Your task to perform on an android device: Empty the shopping cart on bestbuy. Add corsair k70 to the cart on bestbuy, then select checkout. Image 0: 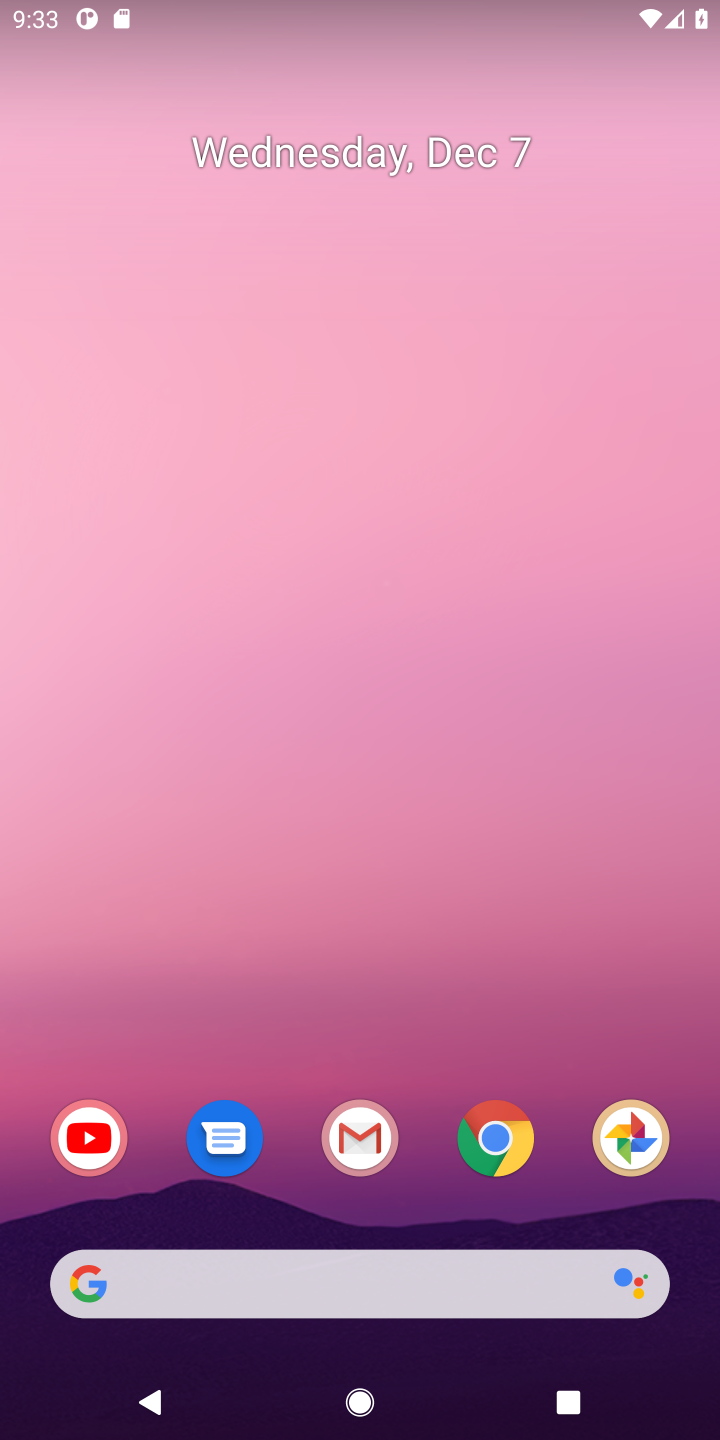
Step 0: press home button
Your task to perform on an android device: Empty the shopping cart on bestbuy. Add corsair k70 to the cart on bestbuy, then select checkout. Image 1: 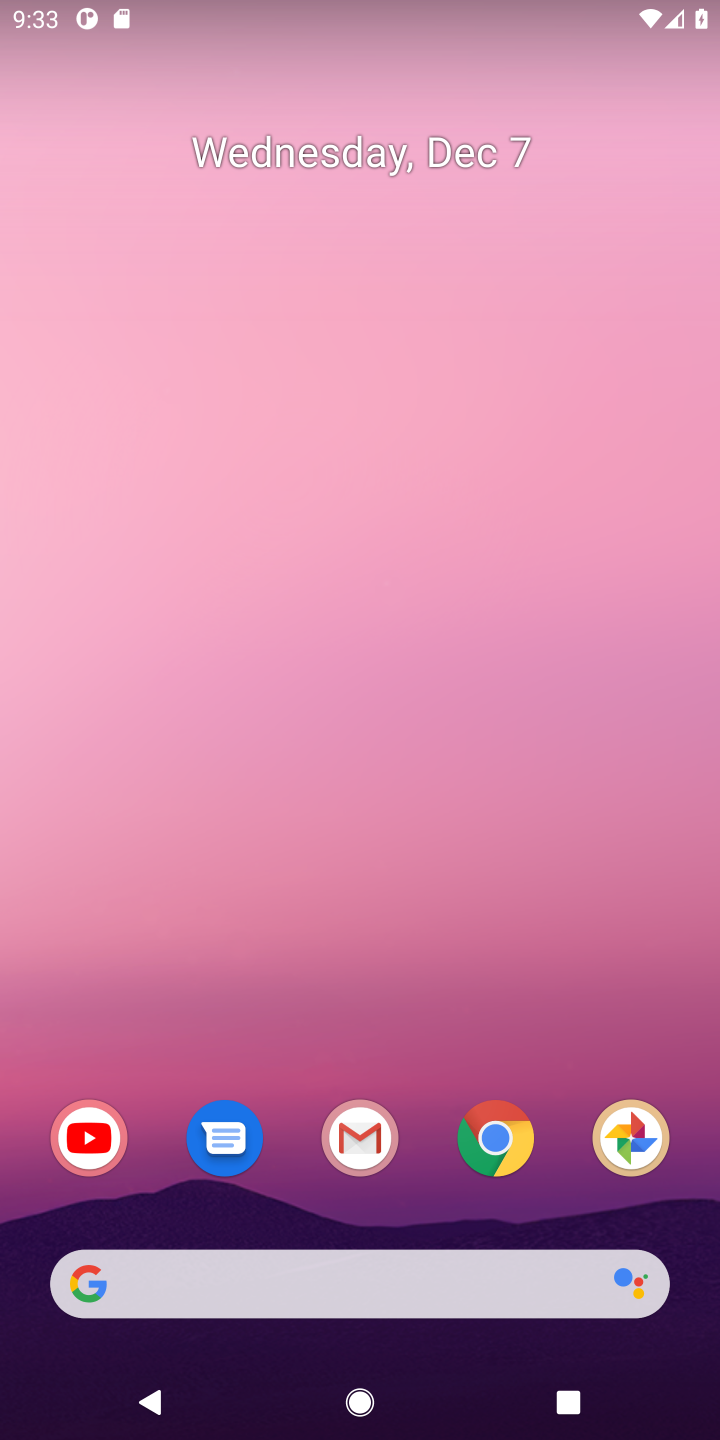
Step 1: click (138, 1281)
Your task to perform on an android device: Empty the shopping cart on bestbuy. Add corsair k70 to the cart on bestbuy, then select checkout. Image 2: 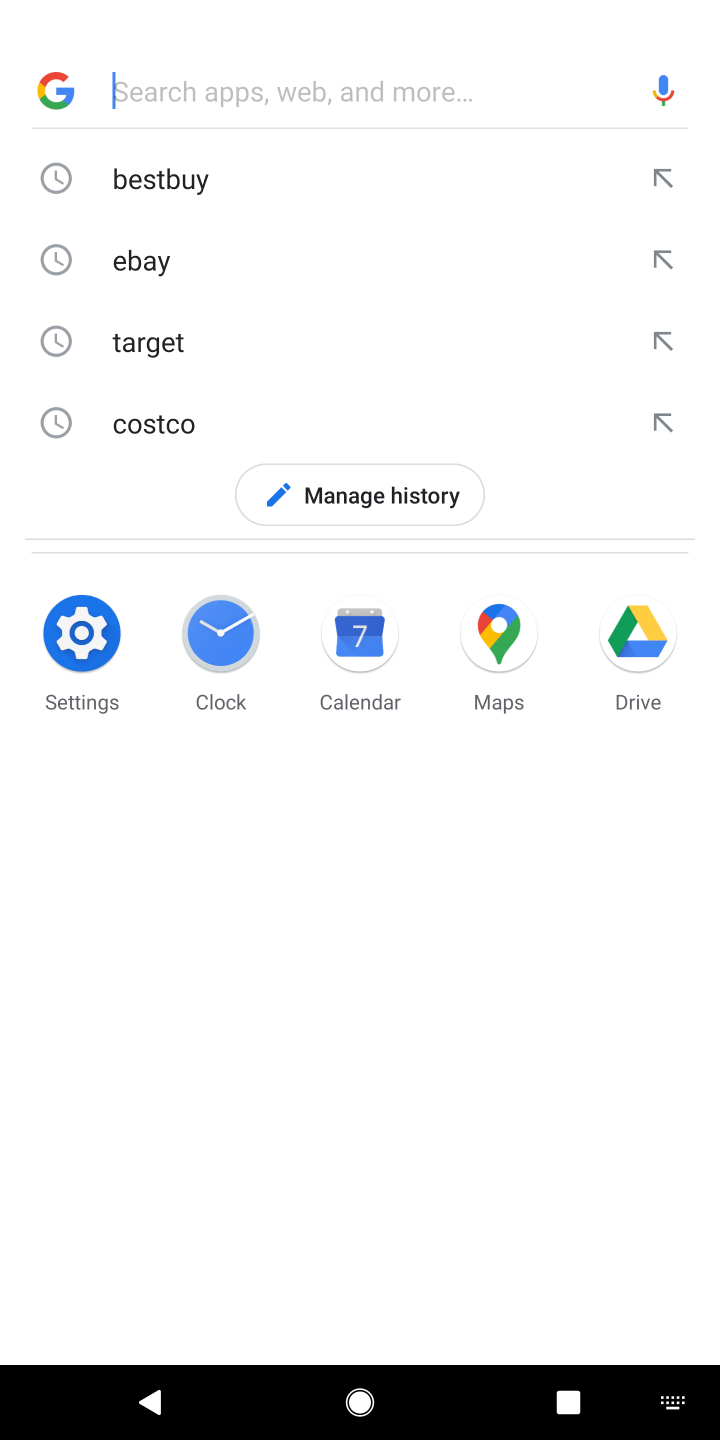
Step 2: type "bestbuy"
Your task to perform on an android device: Empty the shopping cart on bestbuy. Add corsair k70 to the cart on bestbuy, then select checkout. Image 3: 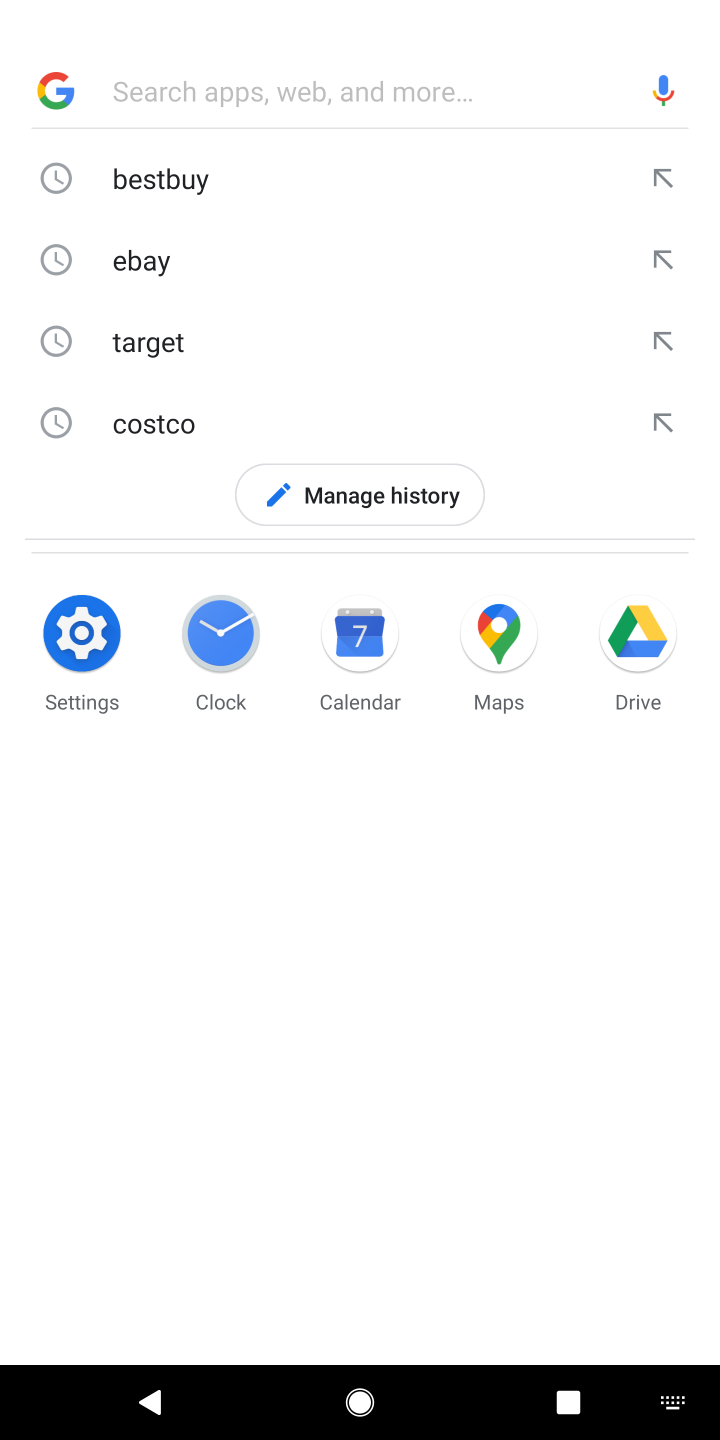
Step 3: click (190, 176)
Your task to perform on an android device: Empty the shopping cart on bestbuy. Add corsair k70 to the cart on bestbuy, then select checkout. Image 4: 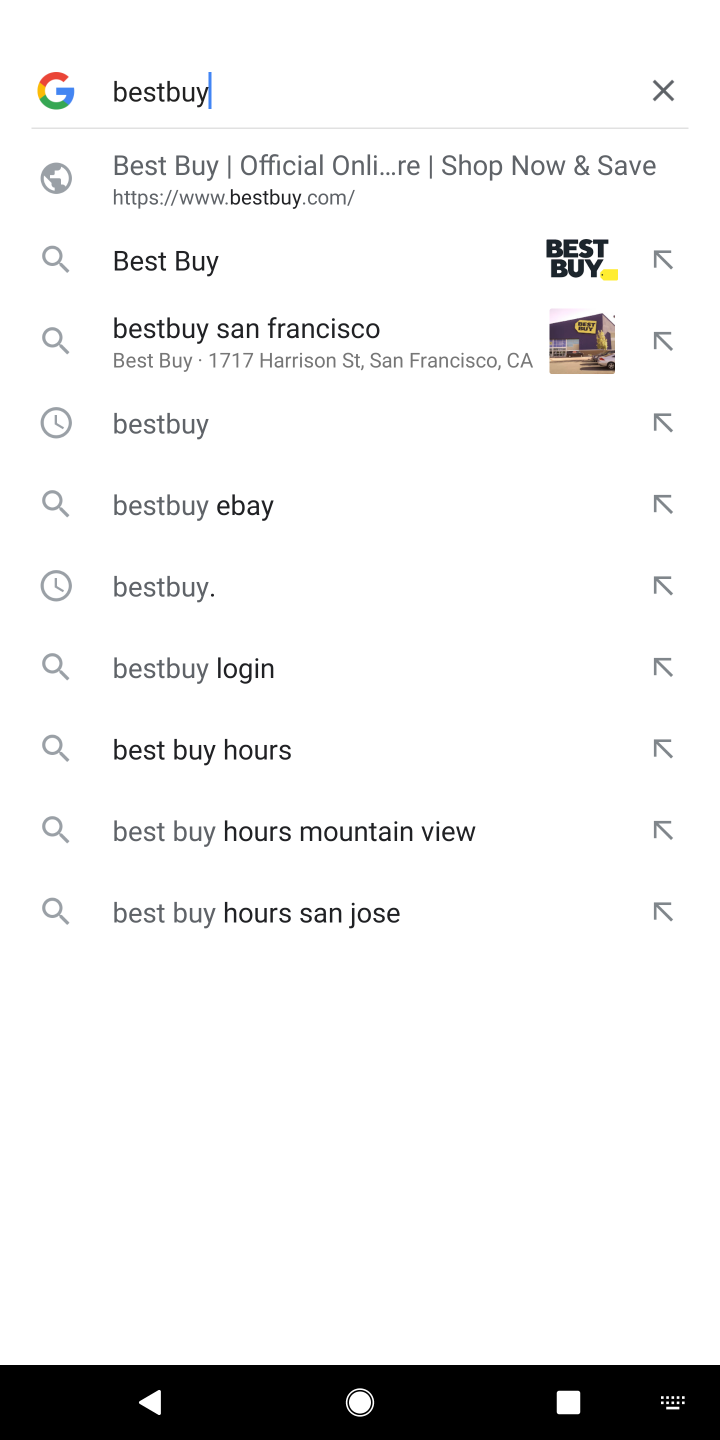
Step 4: press enter
Your task to perform on an android device: Empty the shopping cart on bestbuy. Add corsair k70 to the cart on bestbuy, then select checkout. Image 5: 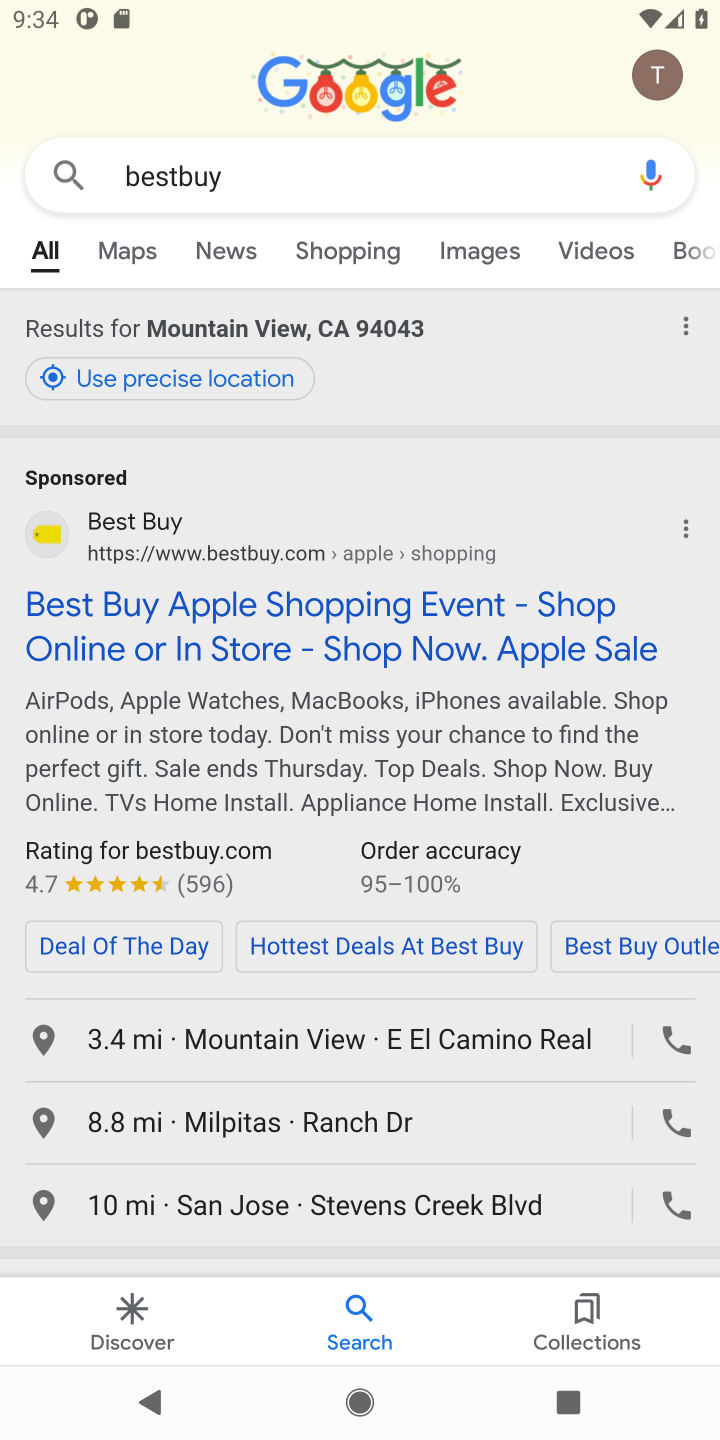
Step 5: click (366, 637)
Your task to perform on an android device: Empty the shopping cart on bestbuy. Add corsair k70 to the cart on bestbuy, then select checkout. Image 6: 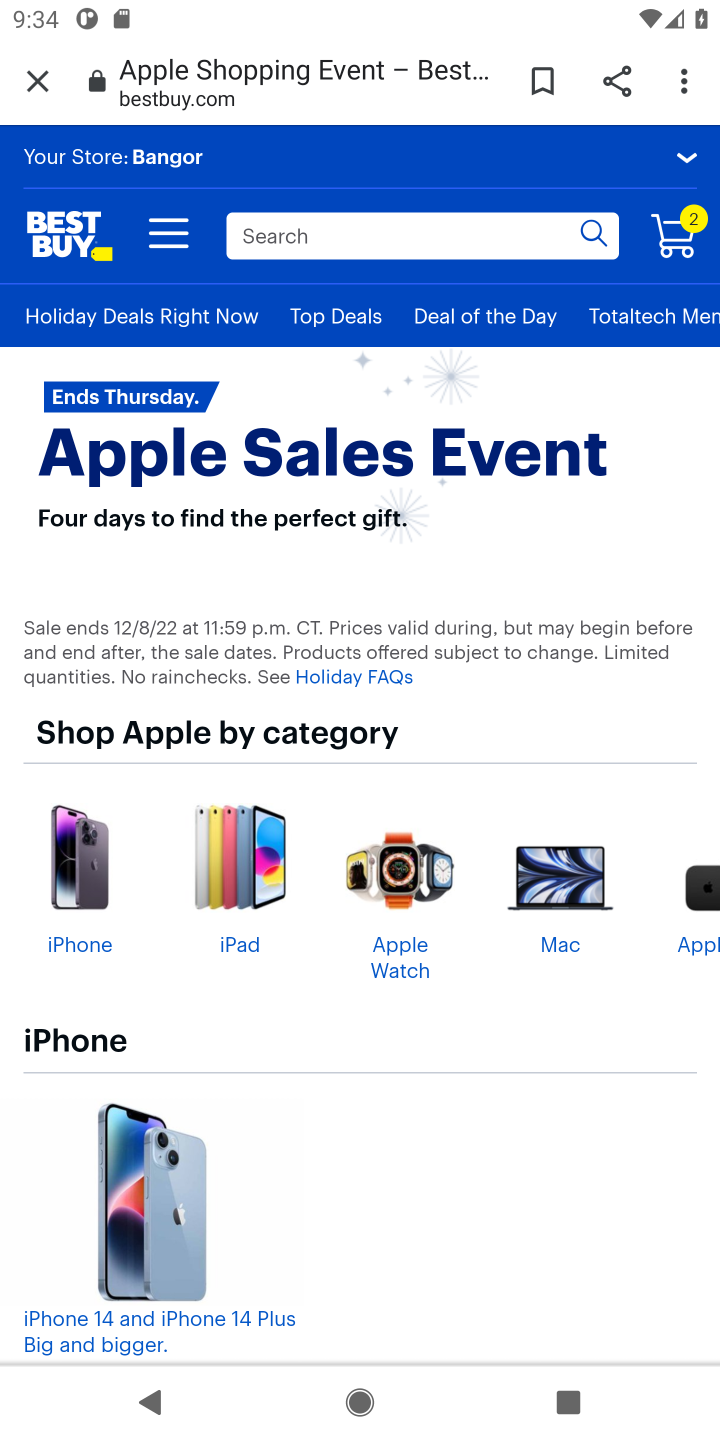
Step 6: click (674, 237)
Your task to perform on an android device: Empty the shopping cart on bestbuy. Add corsair k70 to the cart on bestbuy, then select checkout. Image 7: 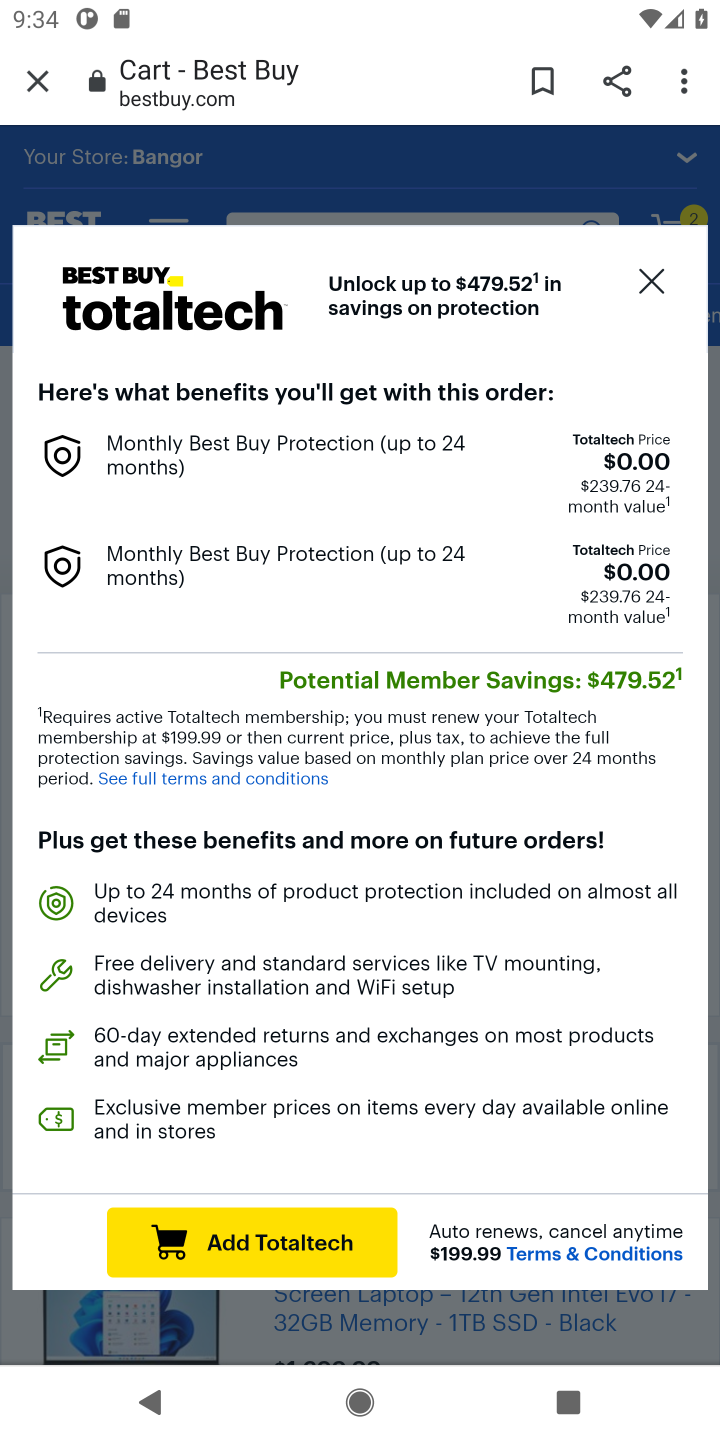
Step 7: click (651, 272)
Your task to perform on an android device: Empty the shopping cart on bestbuy. Add corsair k70 to the cart on bestbuy, then select checkout. Image 8: 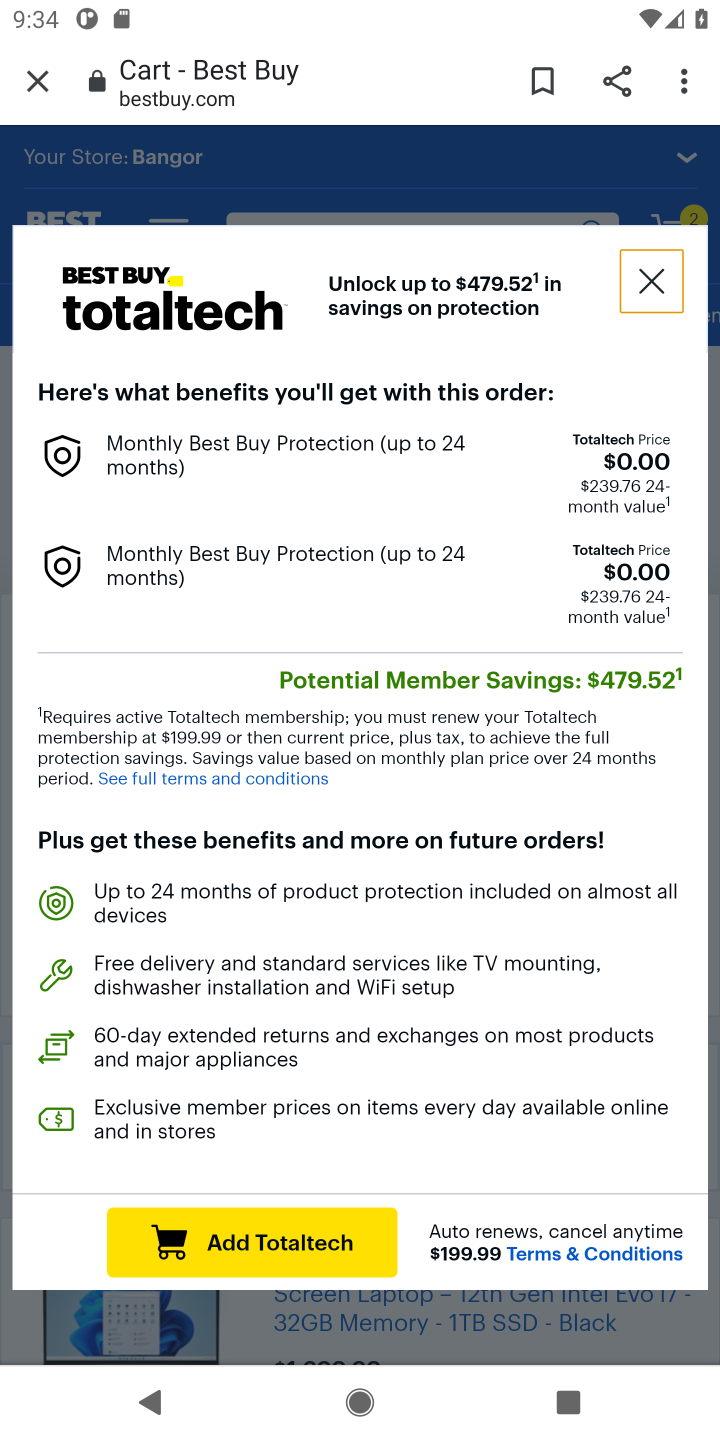
Step 8: click (655, 282)
Your task to perform on an android device: Empty the shopping cart on bestbuy. Add corsair k70 to the cart on bestbuy, then select checkout. Image 9: 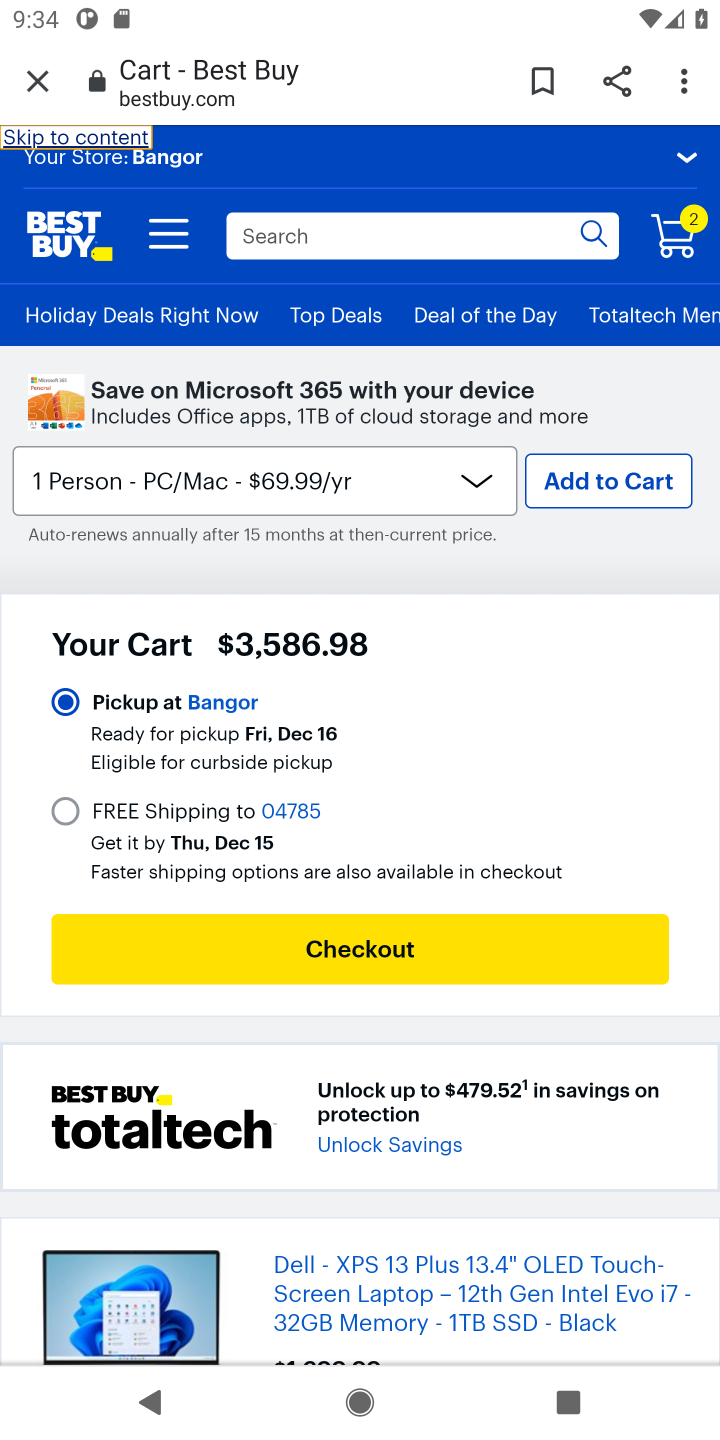
Step 9: drag from (422, 1178) to (416, 474)
Your task to perform on an android device: Empty the shopping cart on bestbuy. Add corsair k70 to the cart on bestbuy, then select checkout. Image 10: 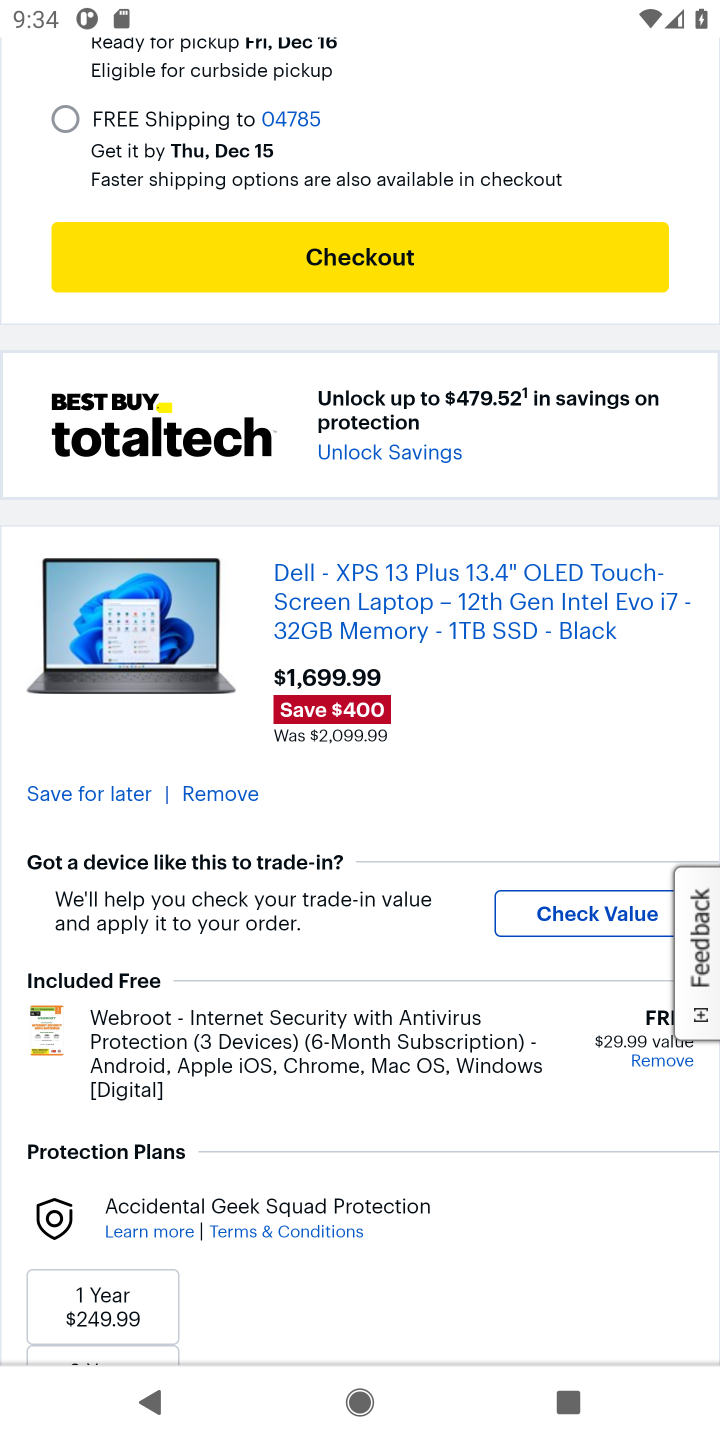
Step 10: click (198, 781)
Your task to perform on an android device: Empty the shopping cart on bestbuy. Add corsair k70 to the cart on bestbuy, then select checkout. Image 11: 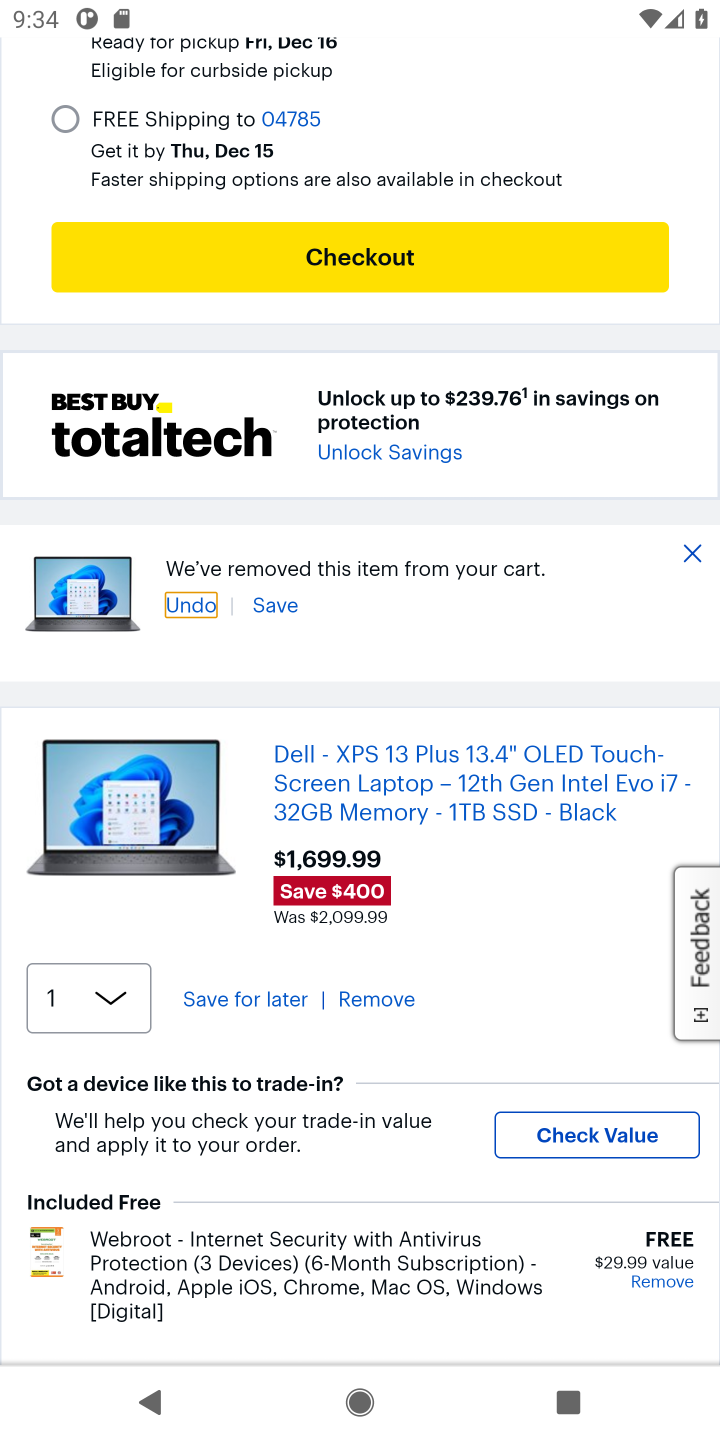
Step 11: click (388, 997)
Your task to perform on an android device: Empty the shopping cart on bestbuy. Add corsair k70 to the cart on bestbuy, then select checkout. Image 12: 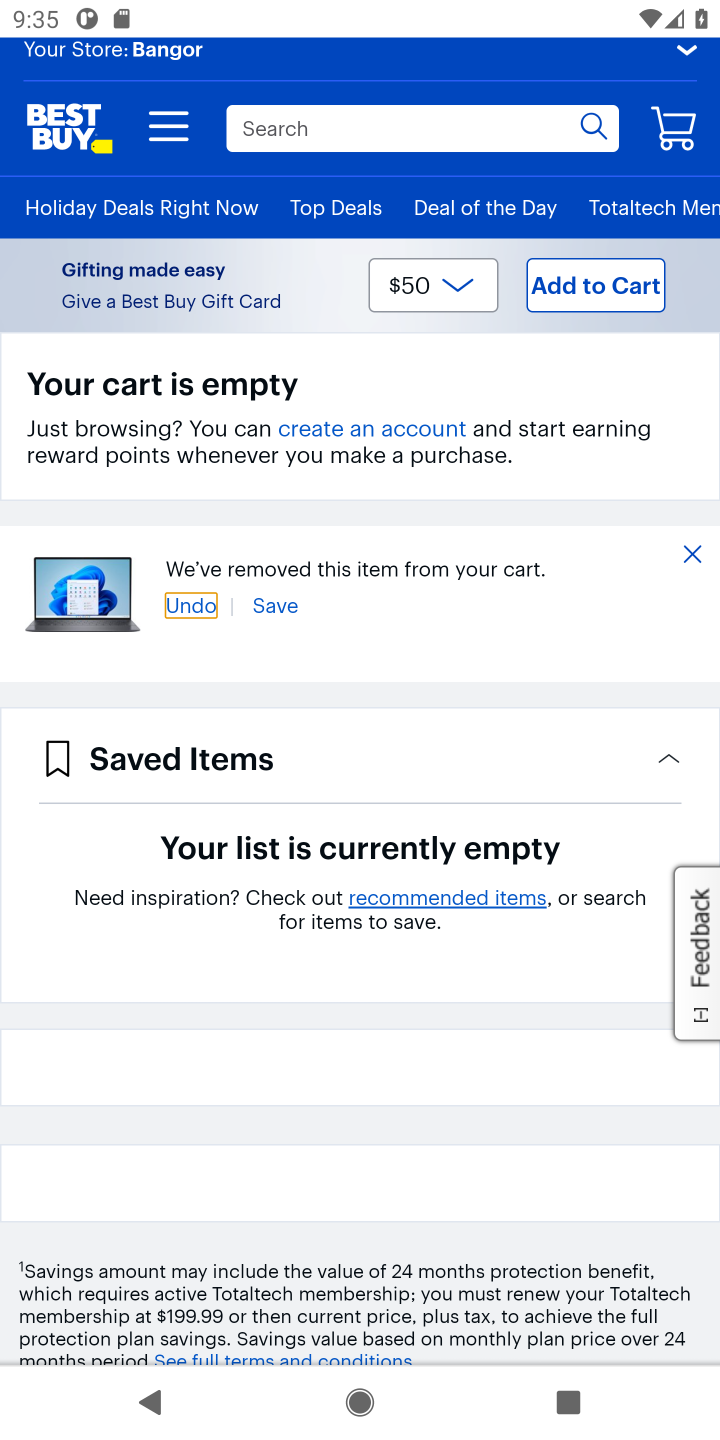
Step 12: click (266, 128)
Your task to perform on an android device: Empty the shopping cart on bestbuy. Add corsair k70 to the cart on bestbuy, then select checkout. Image 13: 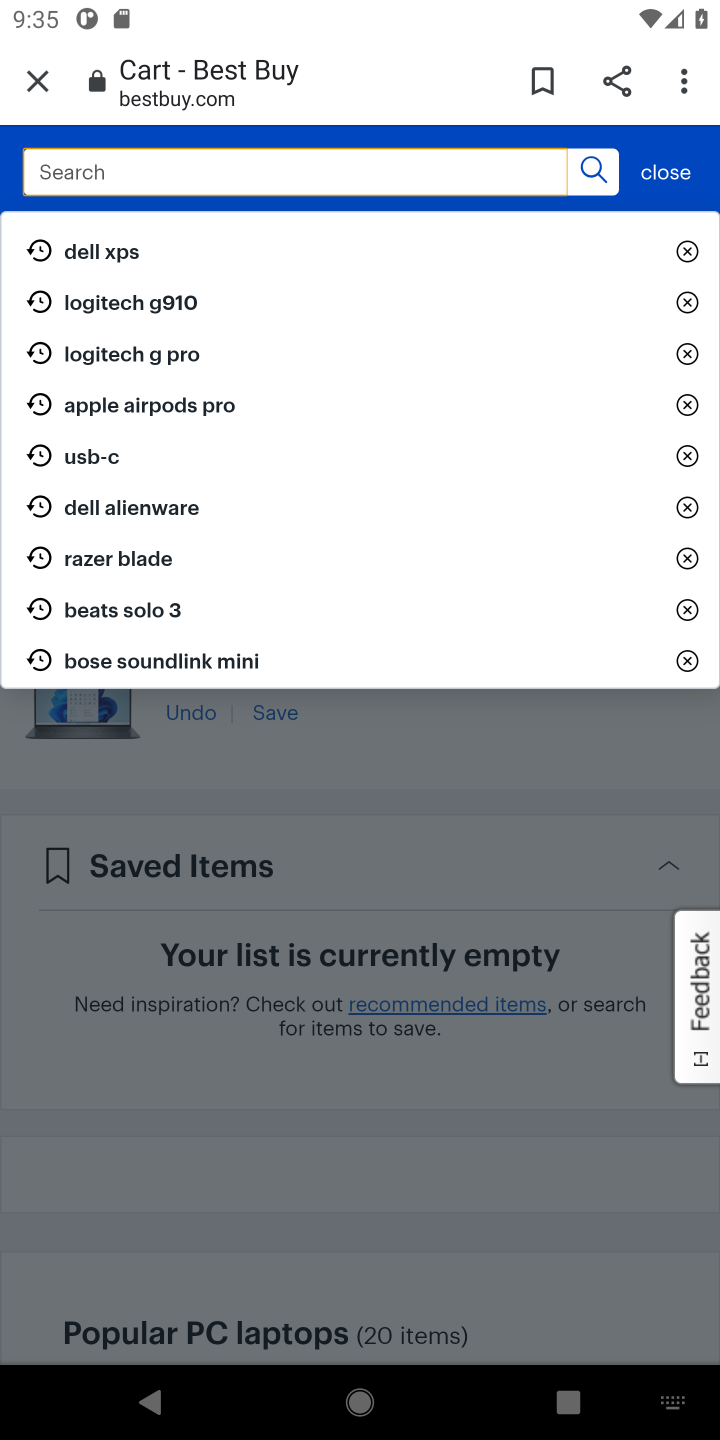
Step 13: type "corsair k70"
Your task to perform on an android device: Empty the shopping cart on bestbuy. Add corsair k70 to the cart on bestbuy, then select checkout. Image 14: 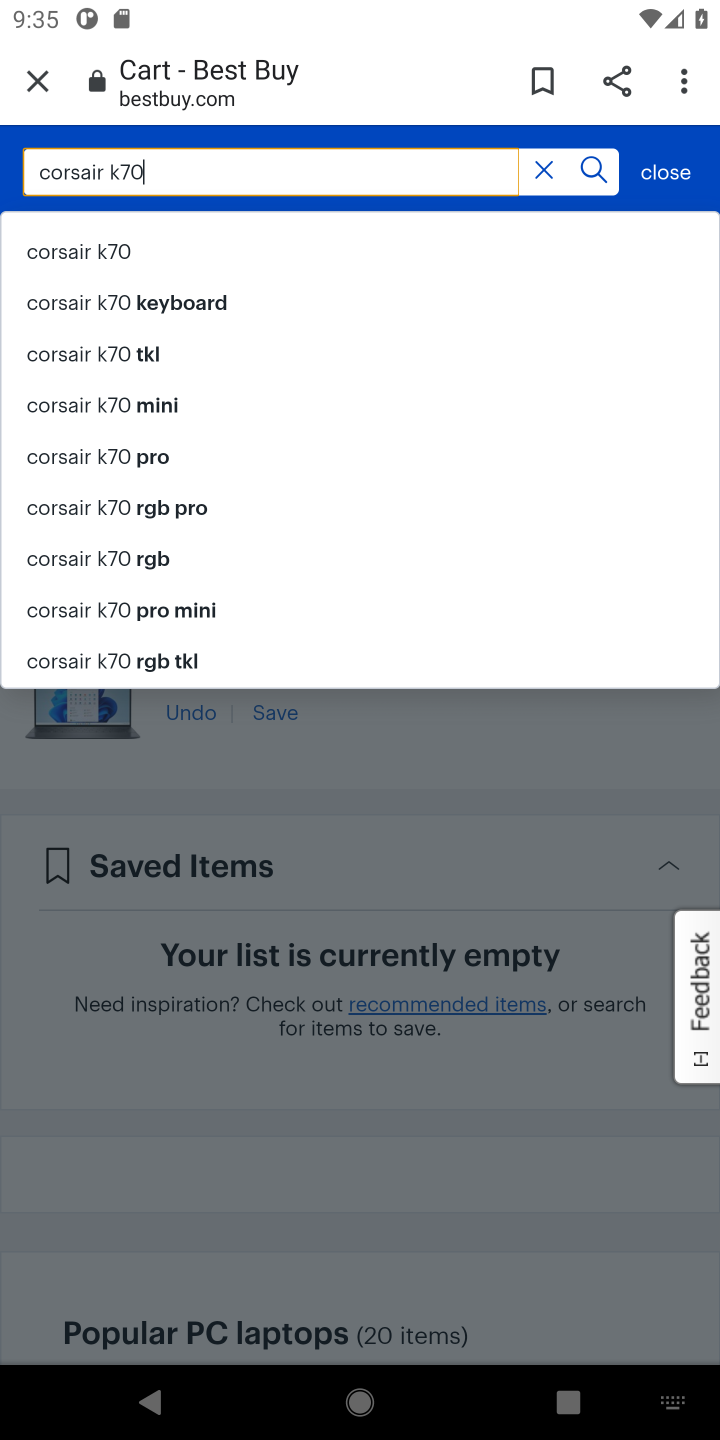
Step 14: press enter
Your task to perform on an android device: Empty the shopping cart on bestbuy. Add corsair k70 to the cart on bestbuy, then select checkout. Image 15: 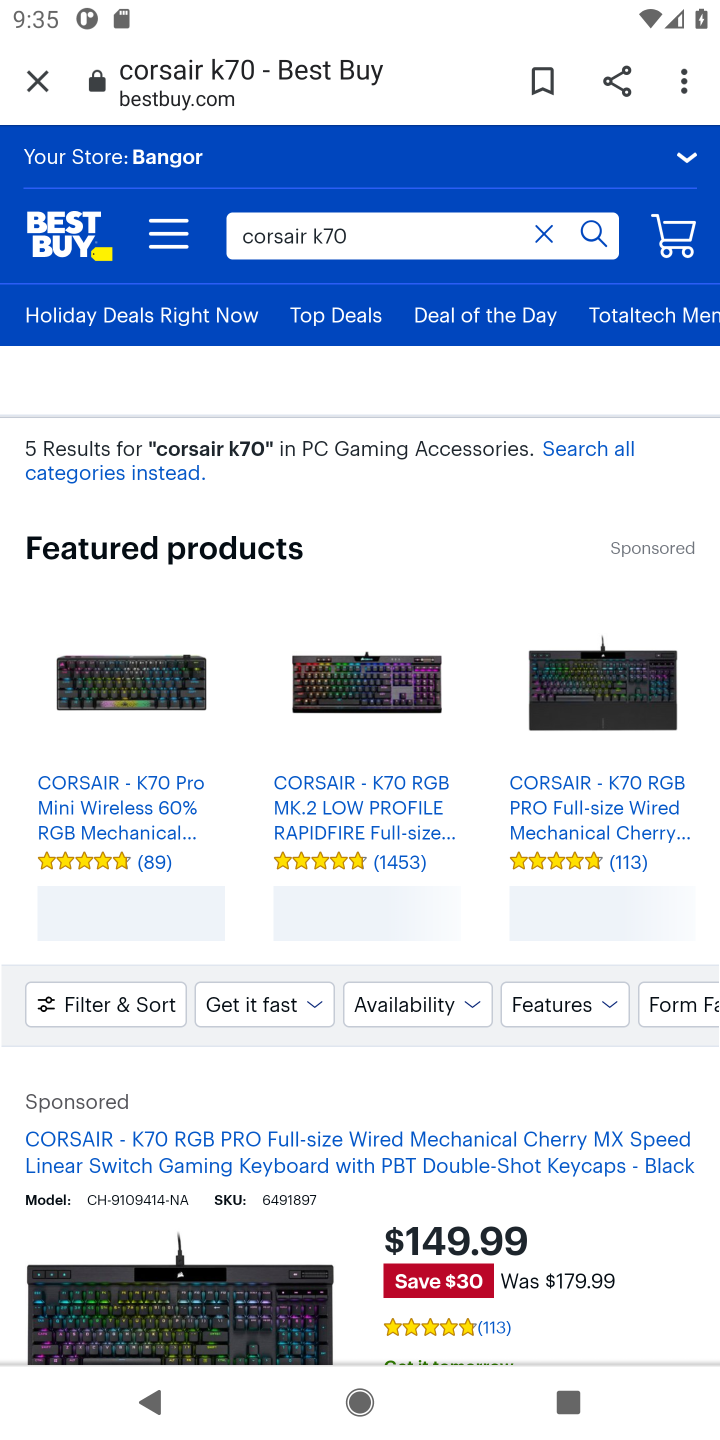
Step 15: drag from (420, 1125) to (451, 444)
Your task to perform on an android device: Empty the shopping cart on bestbuy. Add corsair k70 to the cart on bestbuy, then select checkout. Image 16: 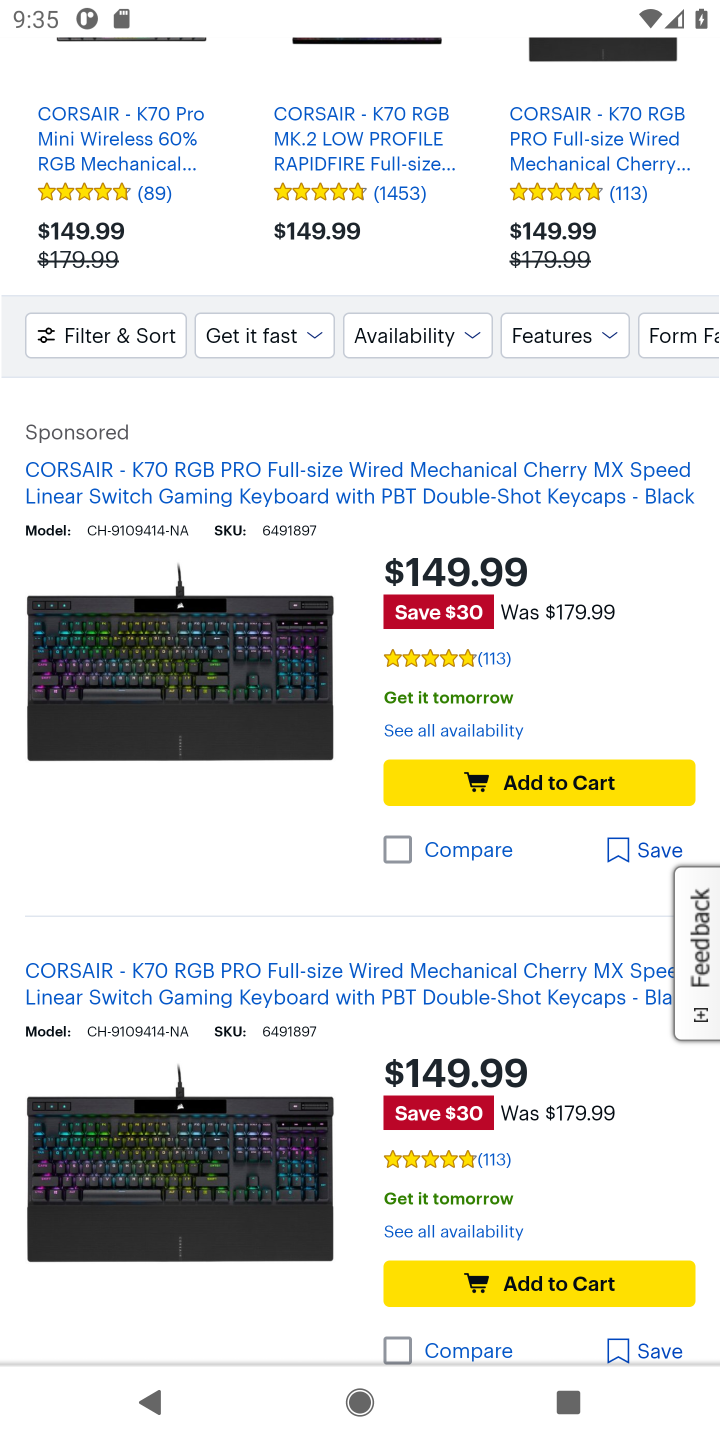
Step 16: click (537, 776)
Your task to perform on an android device: Empty the shopping cart on bestbuy. Add corsair k70 to the cart on bestbuy, then select checkout. Image 17: 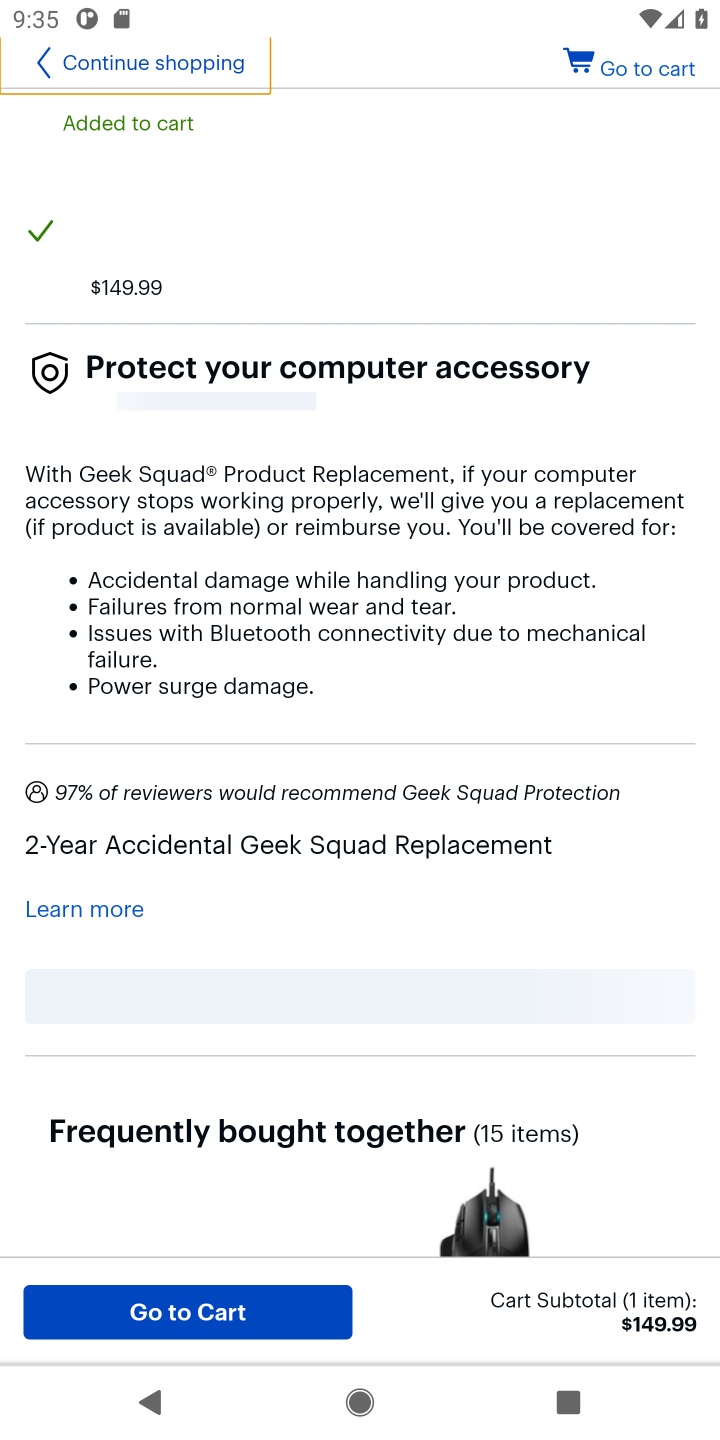
Step 17: click (222, 1317)
Your task to perform on an android device: Empty the shopping cart on bestbuy. Add corsair k70 to the cart on bestbuy, then select checkout. Image 18: 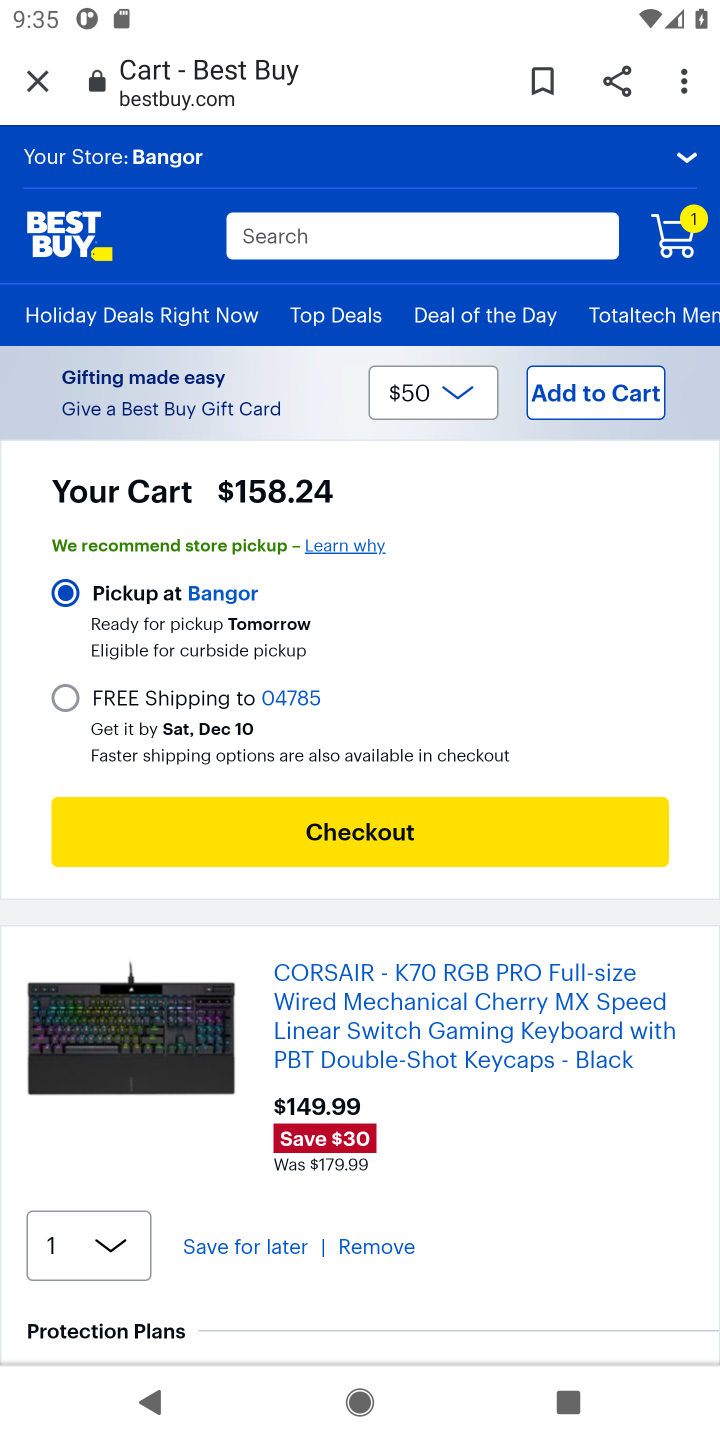
Step 18: click (671, 230)
Your task to perform on an android device: Empty the shopping cart on bestbuy. Add corsair k70 to the cart on bestbuy, then select checkout. Image 19: 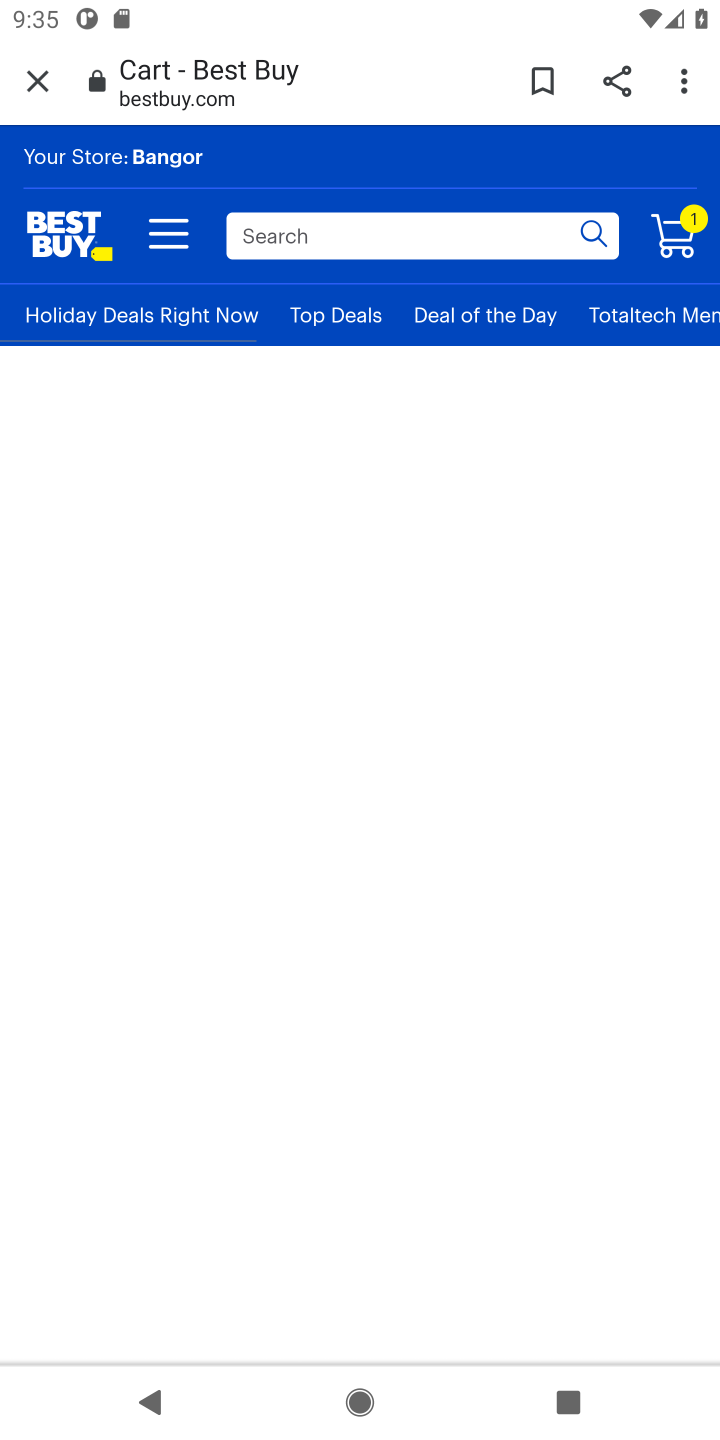
Step 19: click (385, 828)
Your task to perform on an android device: Empty the shopping cart on bestbuy. Add corsair k70 to the cart on bestbuy, then select checkout. Image 20: 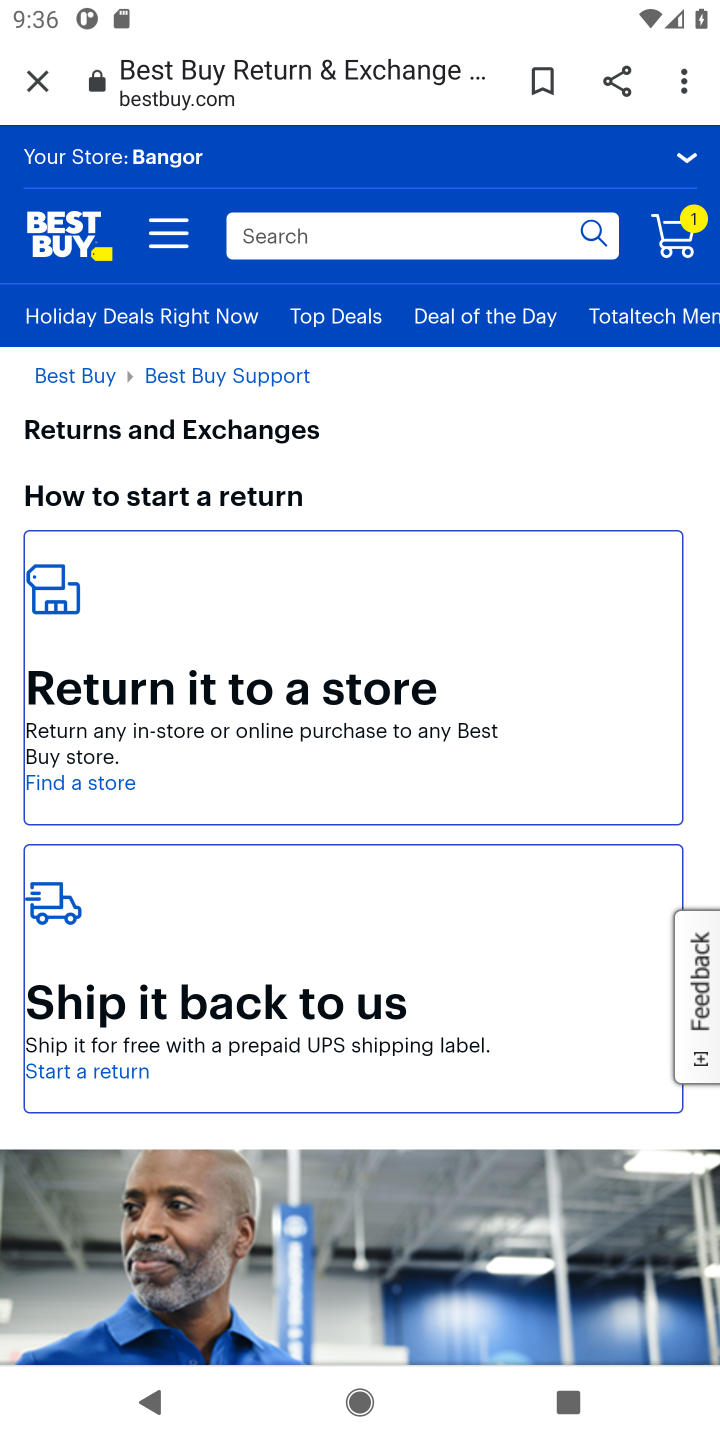
Step 20: click (691, 214)
Your task to perform on an android device: Empty the shopping cart on bestbuy. Add corsair k70 to the cart on bestbuy, then select checkout. Image 21: 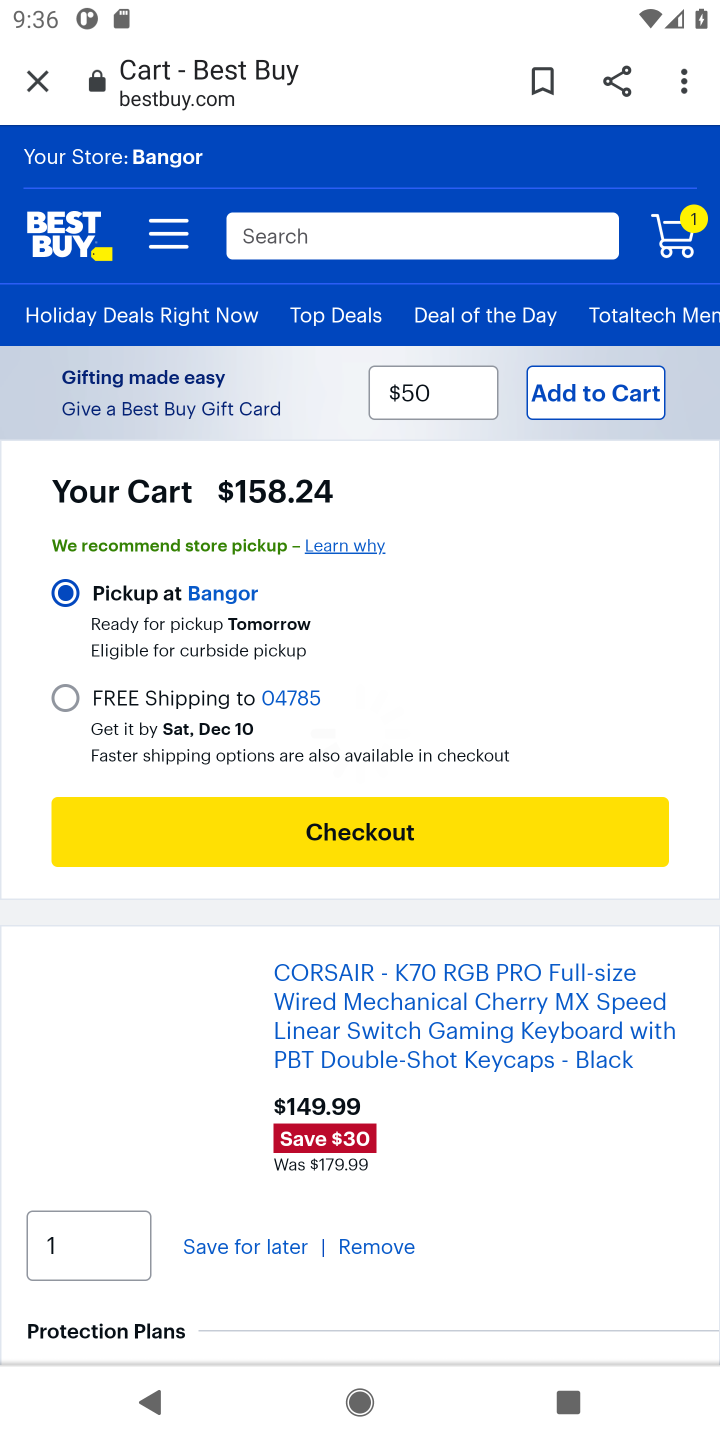
Step 21: click (317, 829)
Your task to perform on an android device: Empty the shopping cart on bestbuy. Add corsair k70 to the cart on bestbuy, then select checkout. Image 22: 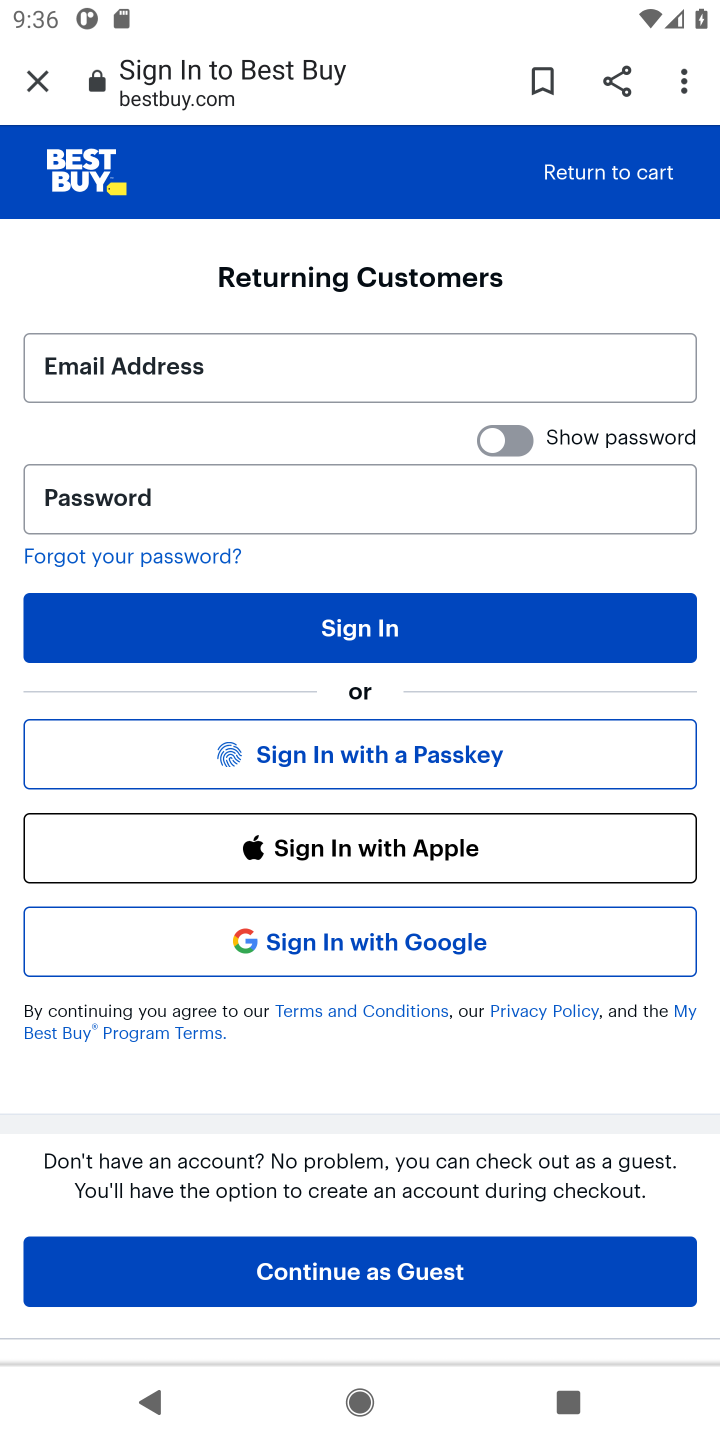
Step 22: task complete